Your task to perform on an android device: Is it going to rain this weekend? Image 0: 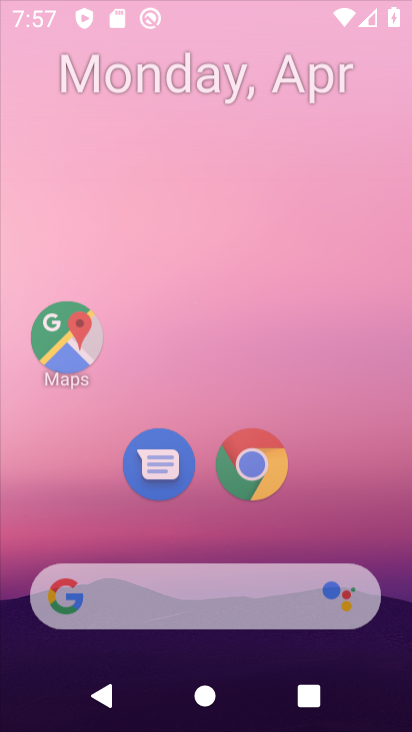
Step 0: drag from (350, 251) to (336, 76)
Your task to perform on an android device: Is it going to rain this weekend? Image 1: 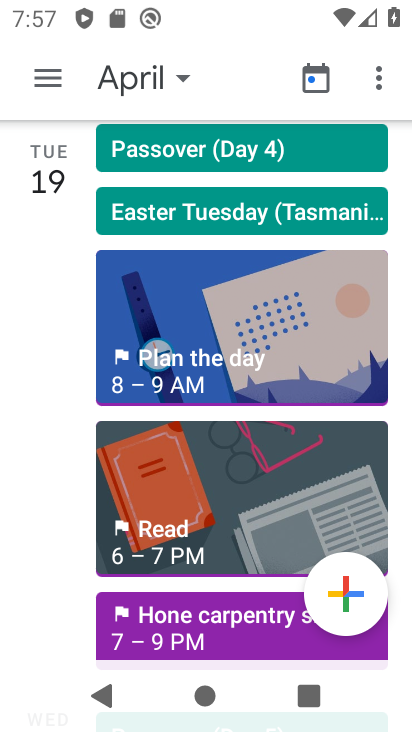
Step 1: press home button
Your task to perform on an android device: Is it going to rain this weekend? Image 2: 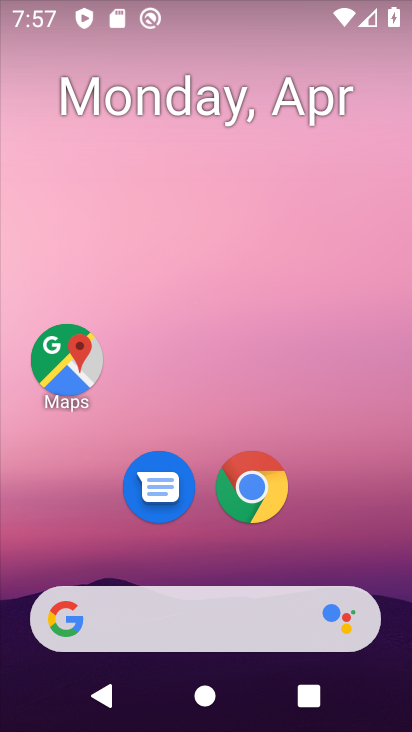
Step 2: click (220, 616)
Your task to perform on an android device: Is it going to rain this weekend? Image 3: 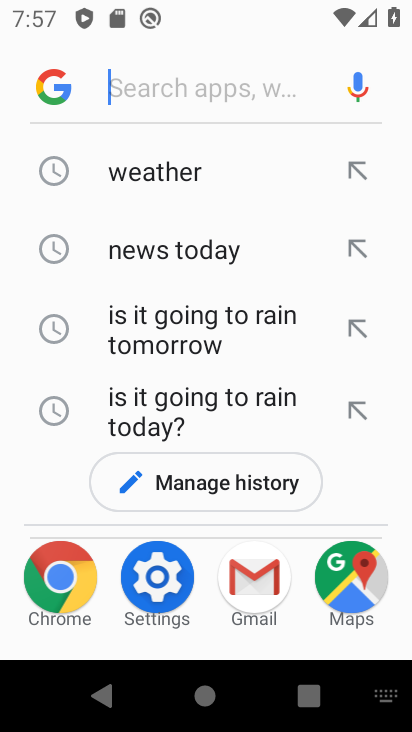
Step 3: click (167, 172)
Your task to perform on an android device: Is it going to rain this weekend? Image 4: 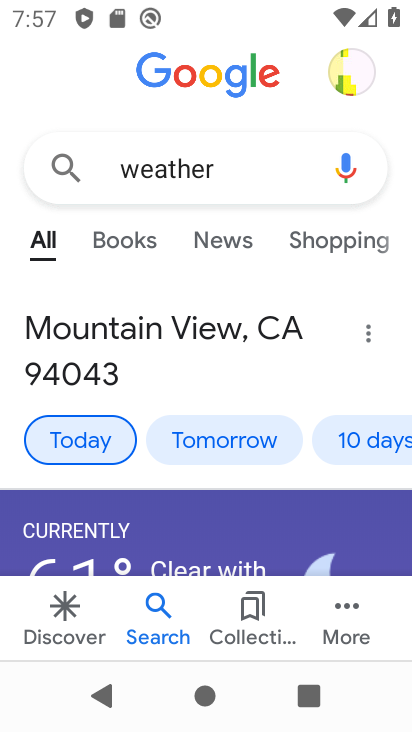
Step 4: click (363, 443)
Your task to perform on an android device: Is it going to rain this weekend? Image 5: 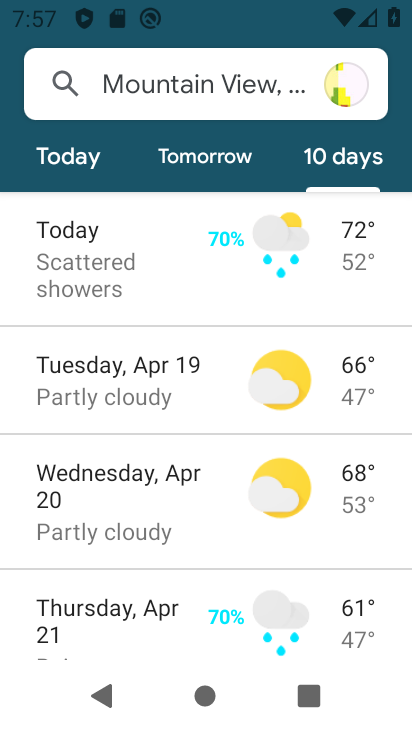
Step 5: drag from (203, 551) to (232, 210)
Your task to perform on an android device: Is it going to rain this weekend? Image 6: 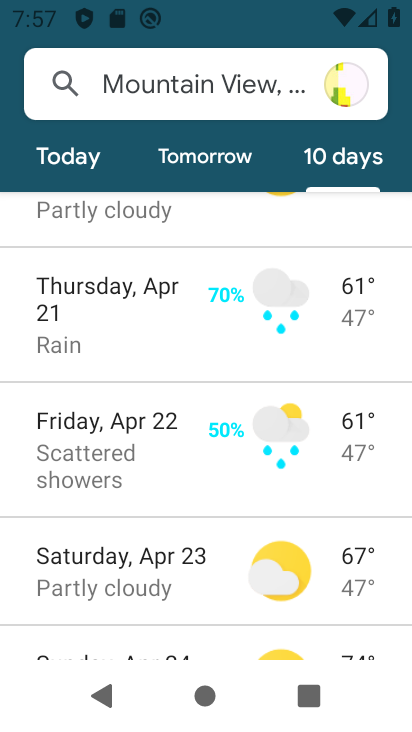
Step 6: click (154, 565)
Your task to perform on an android device: Is it going to rain this weekend? Image 7: 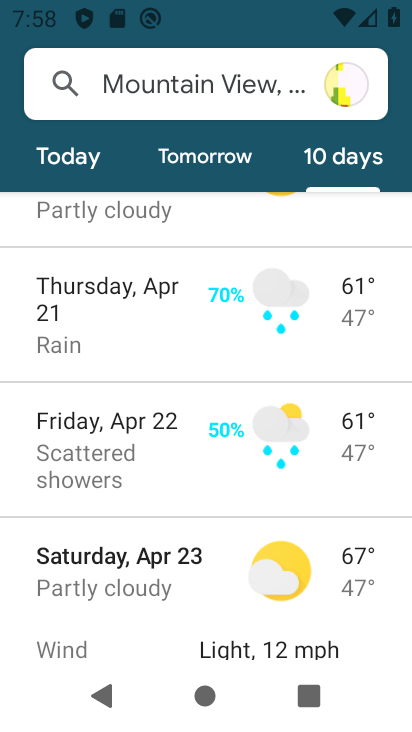
Step 7: task complete